Your task to perform on an android device: Go to display settings Image 0: 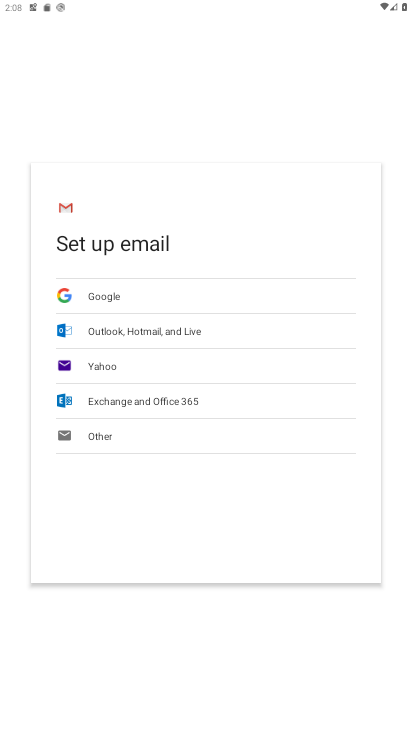
Step 0: click (302, 66)
Your task to perform on an android device: Go to display settings Image 1: 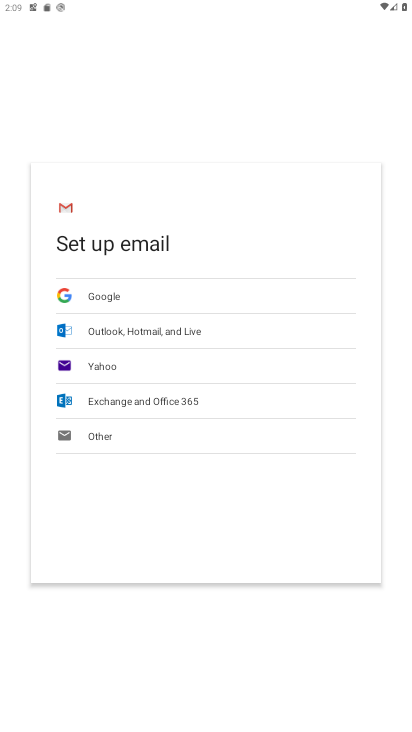
Step 1: drag from (239, 641) to (342, 152)
Your task to perform on an android device: Go to display settings Image 2: 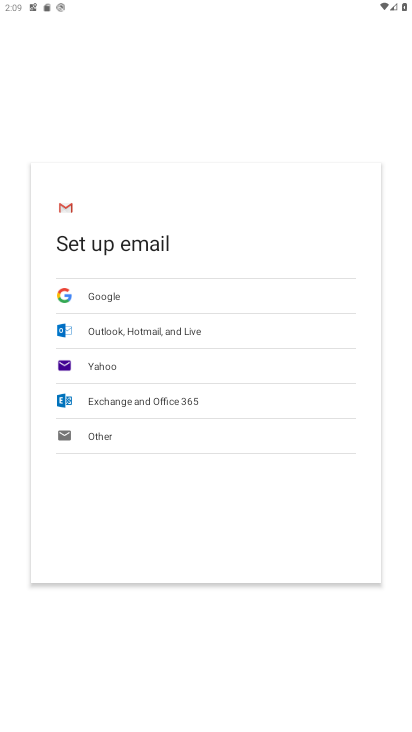
Step 2: press home button
Your task to perform on an android device: Go to display settings Image 3: 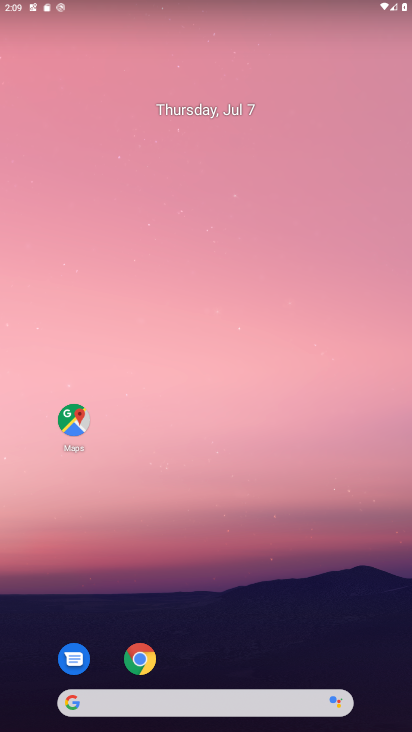
Step 3: click (322, 99)
Your task to perform on an android device: Go to display settings Image 4: 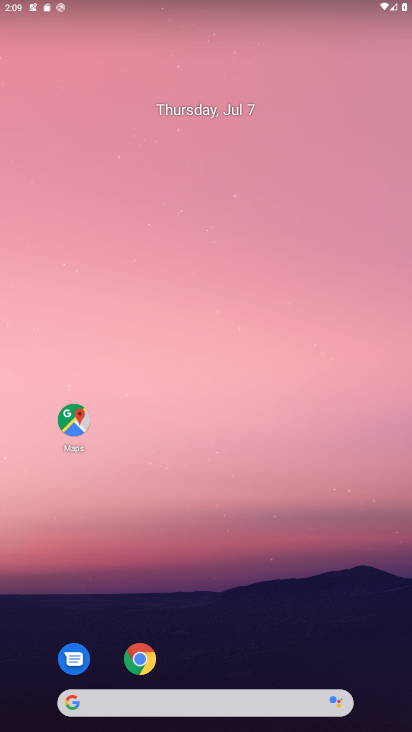
Step 4: drag from (246, 544) to (247, 233)
Your task to perform on an android device: Go to display settings Image 5: 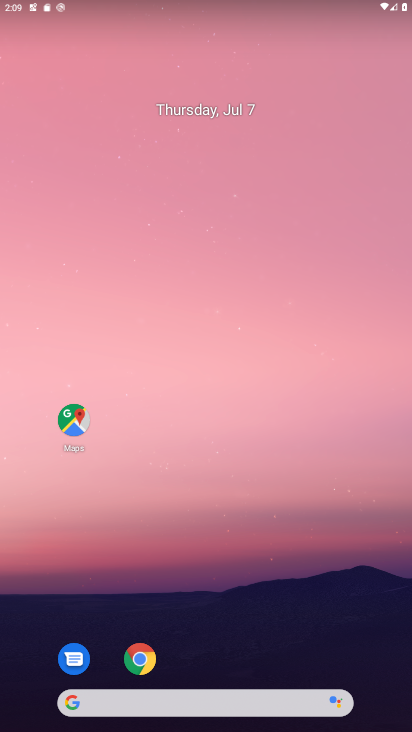
Step 5: drag from (180, 667) to (176, 143)
Your task to perform on an android device: Go to display settings Image 6: 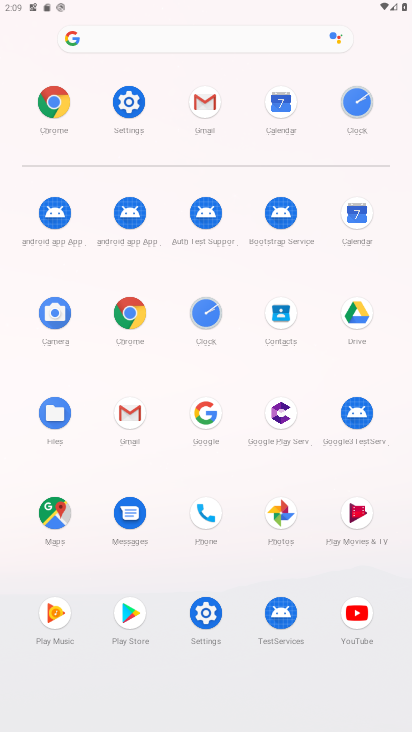
Step 6: click (204, 618)
Your task to perform on an android device: Go to display settings Image 7: 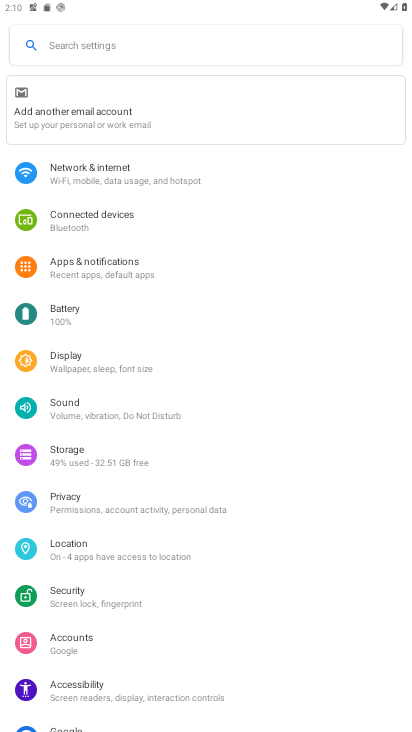
Step 7: click (92, 361)
Your task to perform on an android device: Go to display settings Image 8: 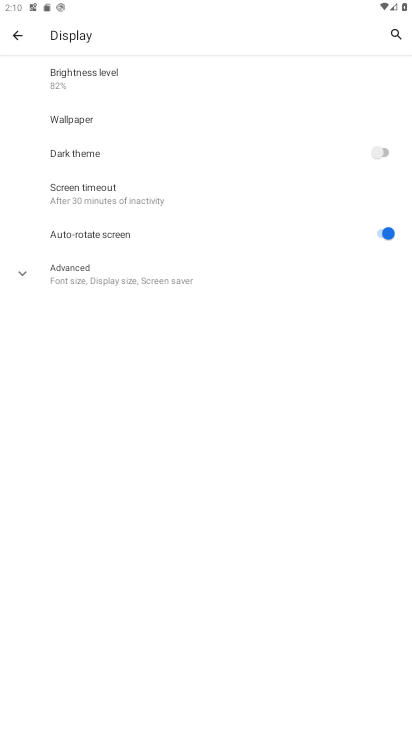
Step 8: task complete